Your task to perform on an android device: check android version Image 0: 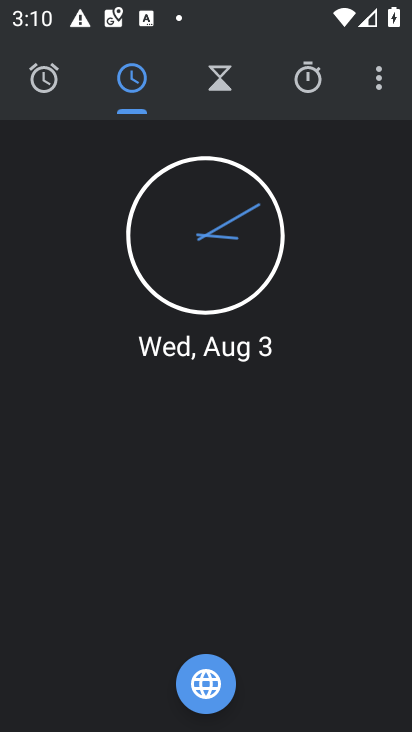
Step 0: press home button
Your task to perform on an android device: check android version Image 1: 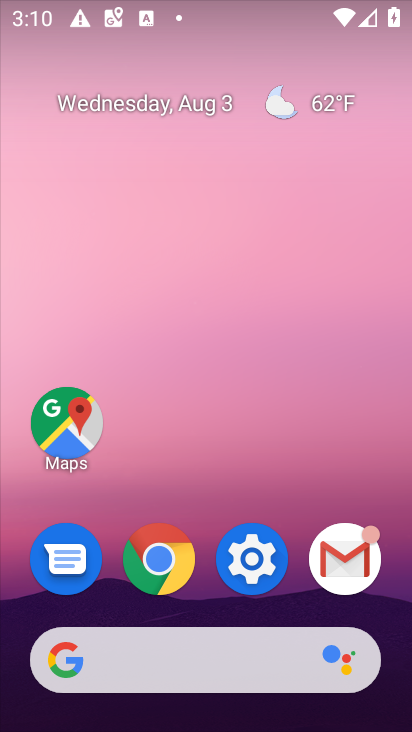
Step 1: click (240, 556)
Your task to perform on an android device: check android version Image 2: 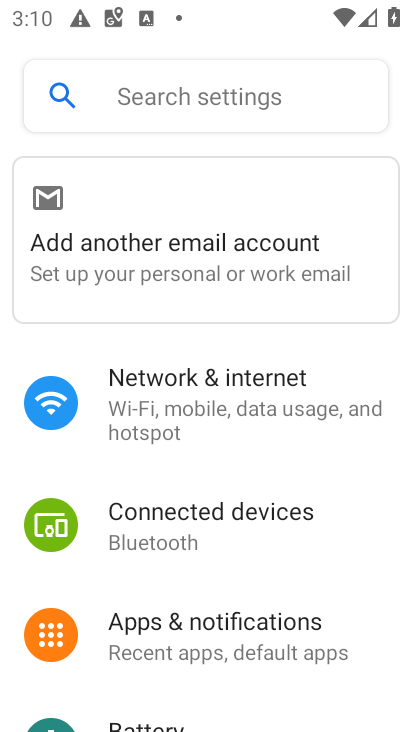
Step 2: press home button
Your task to perform on an android device: check android version Image 3: 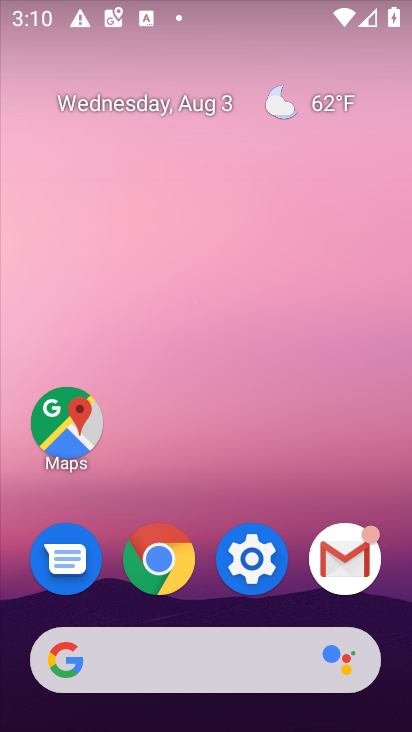
Step 3: click (261, 568)
Your task to perform on an android device: check android version Image 4: 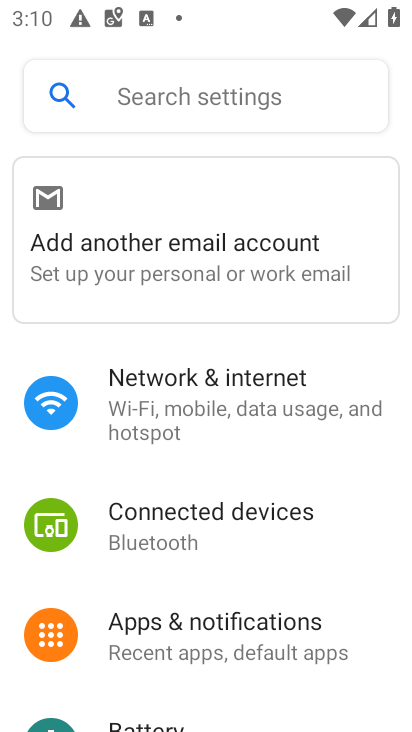
Step 4: click (155, 94)
Your task to perform on an android device: check android version Image 5: 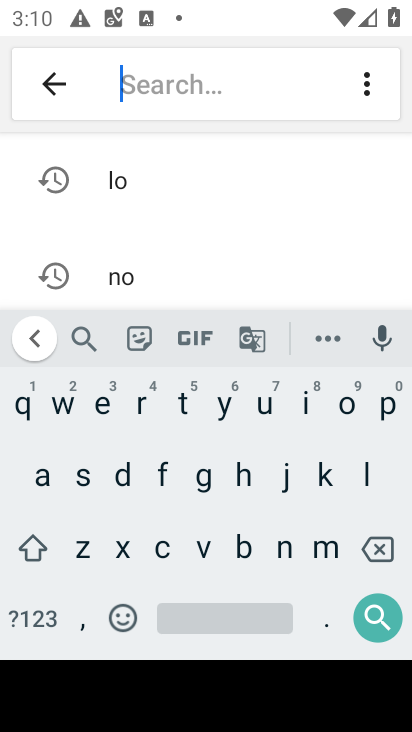
Step 5: click (39, 479)
Your task to perform on an android device: check android version Image 6: 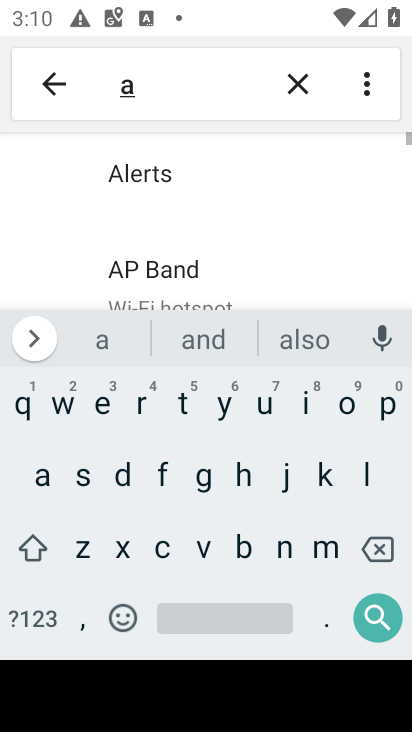
Step 6: click (278, 550)
Your task to perform on an android device: check android version Image 7: 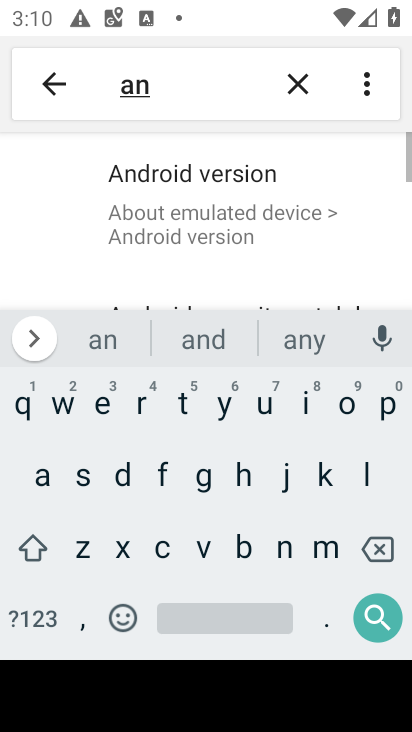
Step 7: click (194, 171)
Your task to perform on an android device: check android version Image 8: 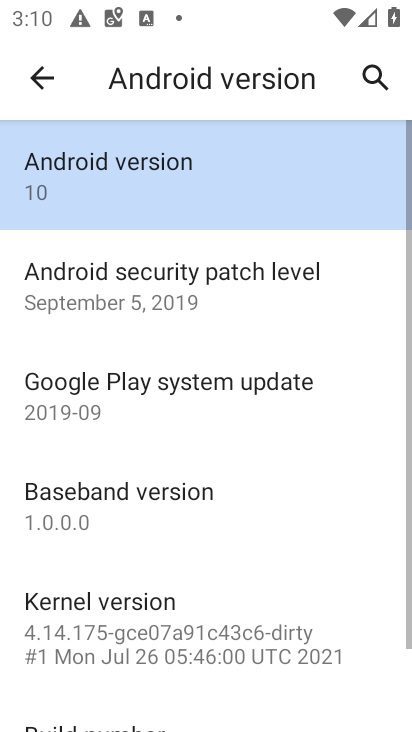
Step 8: click (190, 177)
Your task to perform on an android device: check android version Image 9: 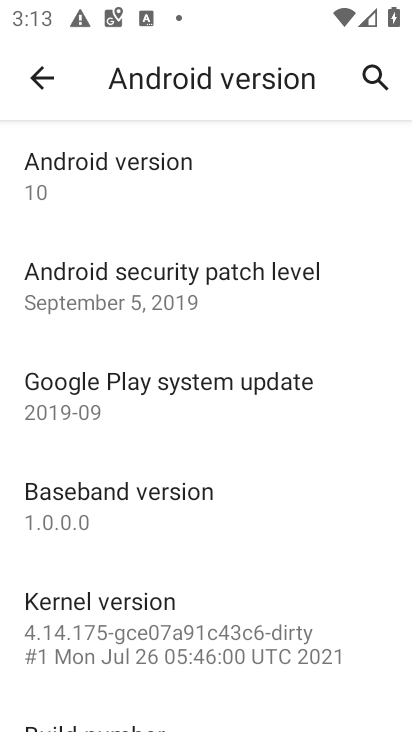
Step 9: task complete